Your task to perform on an android device: Do I have any events this weekend? Image 0: 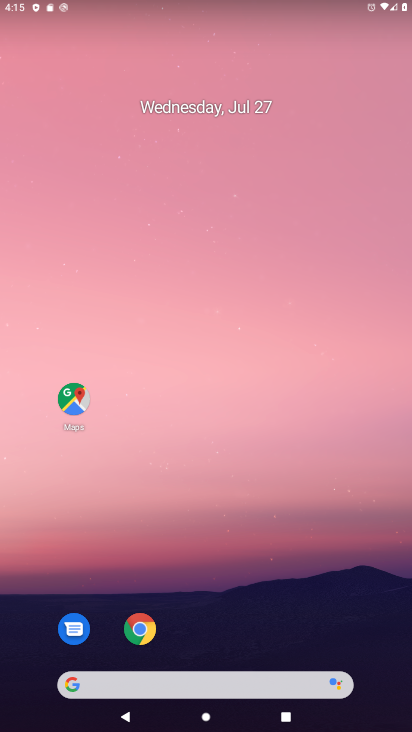
Step 0: drag from (234, 570) to (284, 36)
Your task to perform on an android device: Do I have any events this weekend? Image 1: 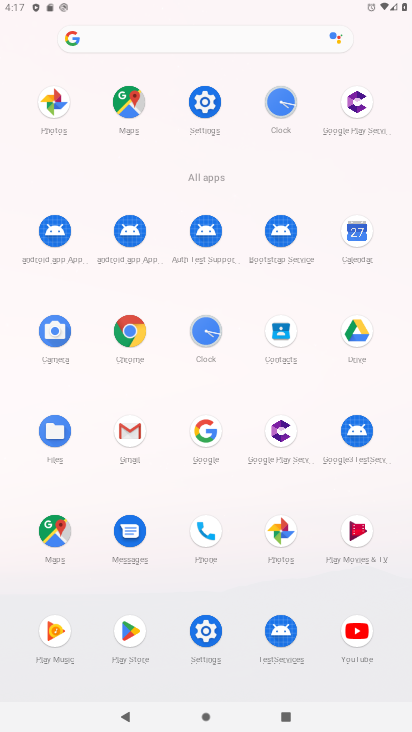
Step 1: click (345, 239)
Your task to perform on an android device: Do I have any events this weekend? Image 2: 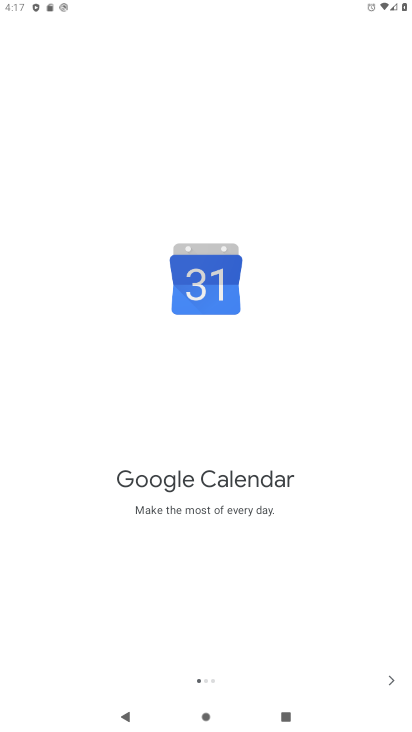
Step 2: click (386, 679)
Your task to perform on an android device: Do I have any events this weekend? Image 3: 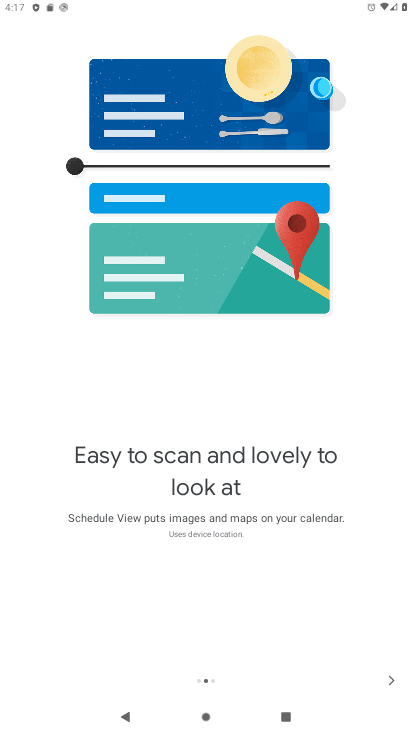
Step 3: click (391, 685)
Your task to perform on an android device: Do I have any events this weekend? Image 4: 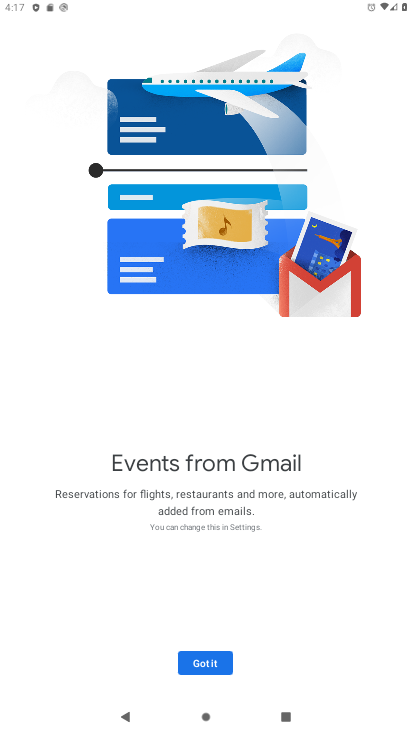
Step 4: click (212, 651)
Your task to perform on an android device: Do I have any events this weekend? Image 5: 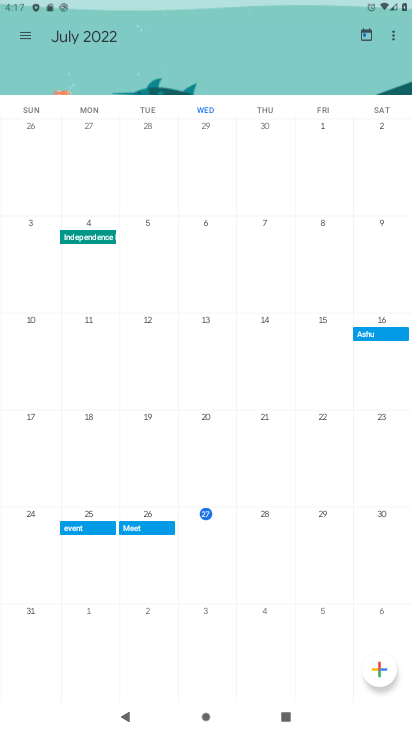
Step 5: task complete